Your task to perform on an android device: Open my contact list Image 0: 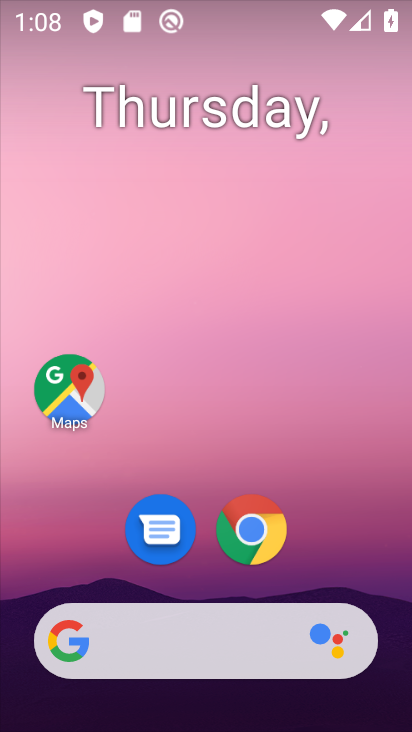
Step 0: drag from (358, 538) to (357, 189)
Your task to perform on an android device: Open my contact list Image 1: 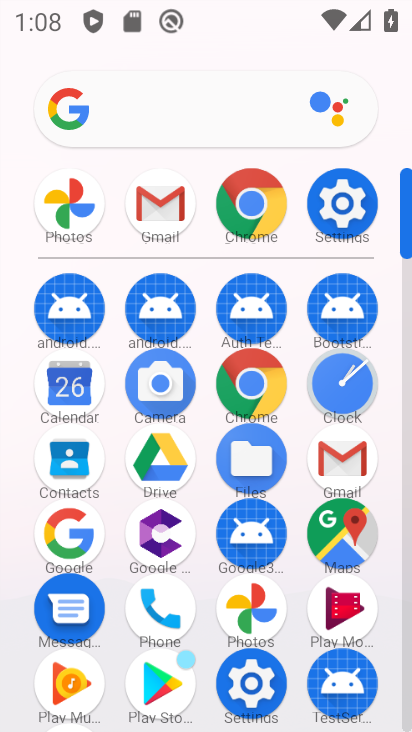
Step 1: click (351, 202)
Your task to perform on an android device: Open my contact list Image 2: 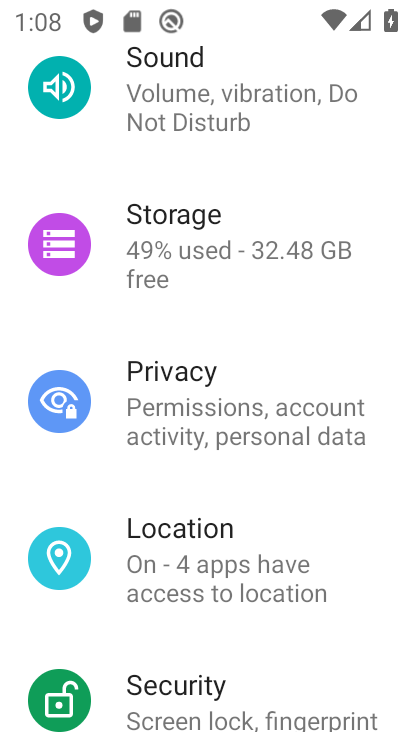
Step 2: drag from (275, 637) to (305, 375)
Your task to perform on an android device: Open my contact list Image 3: 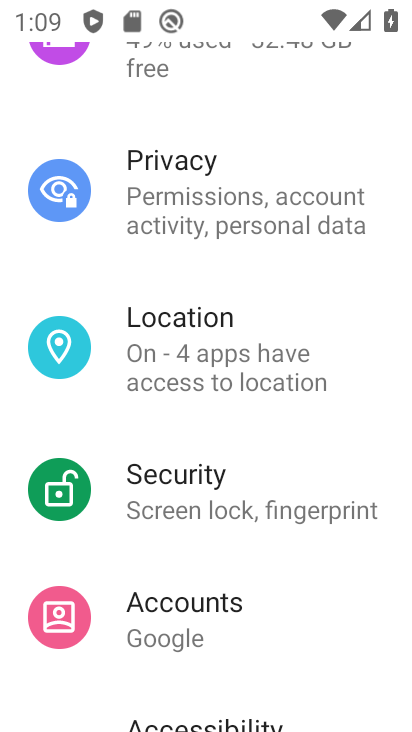
Step 3: press home button
Your task to perform on an android device: Open my contact list Image 4: 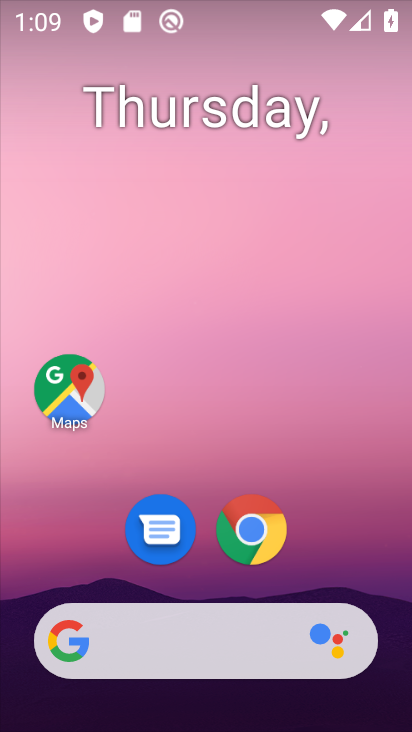
Step 4: drag from (384, 571) to (331, 174)
Your task to perform on an android device: Open my contact list Image 5: 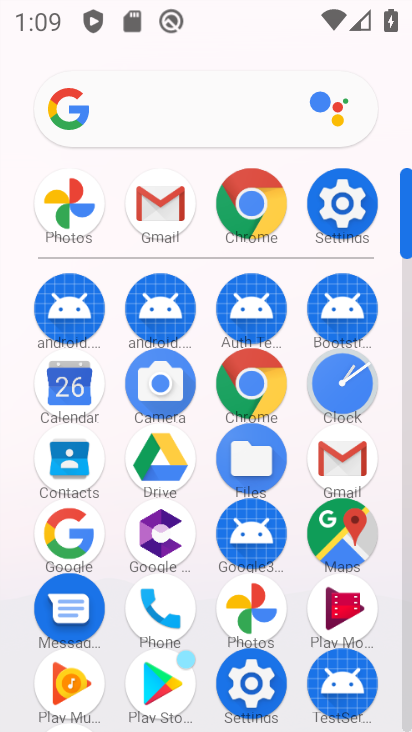
Step 5: click (55, 459)
Your task to perform on an android device: Open my contact list Image 6: 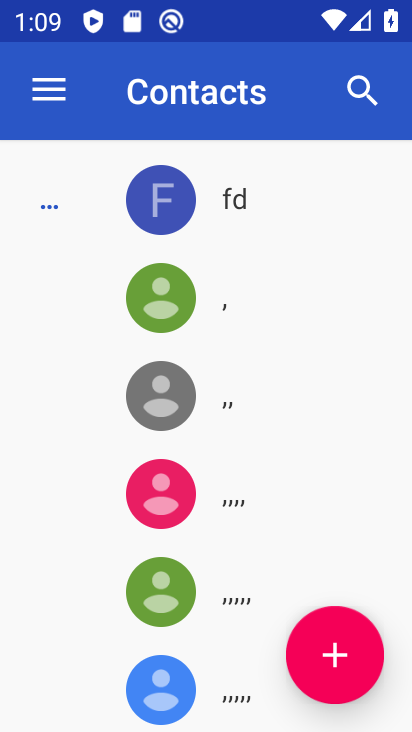
Step 6: task complete